Your task to perform on an android device: Search for vegetarian restaurants on Maps Image 0: 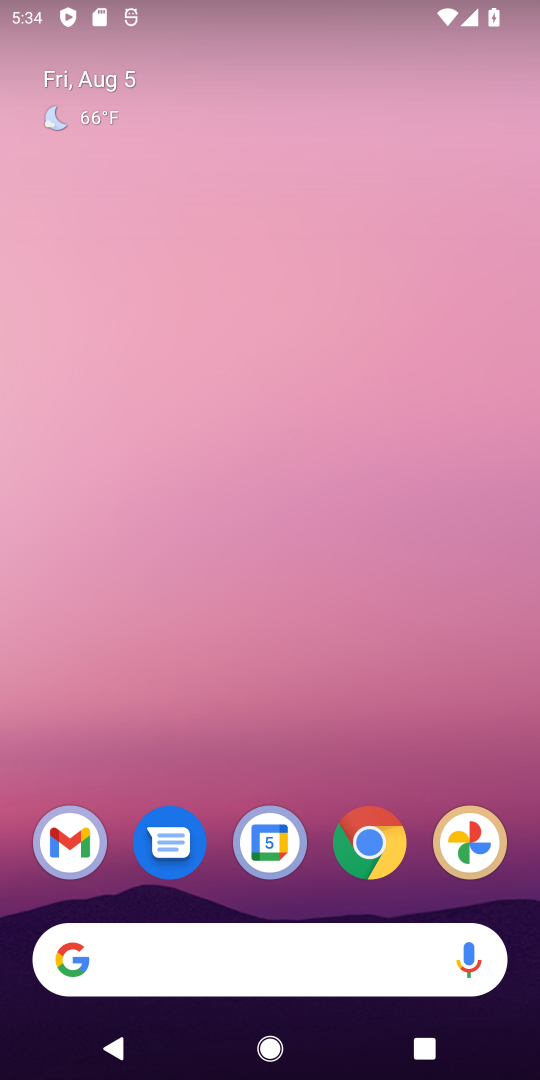
Step 0: drag from (34, 1024) to (207, 189)
Your task to perform on an android device: Search for vegetarian restaurants on Maps Image 1: 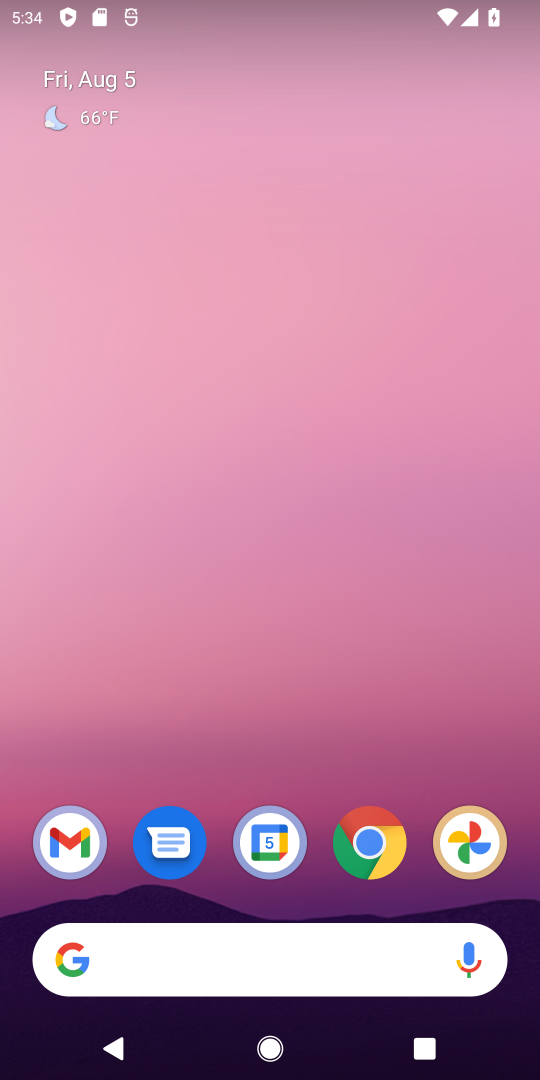
Step 1: drag from (14, 1036) to (295, 168)
Your task to perform on an android device: Search for vegetarian restaurants on Maps Image 2: 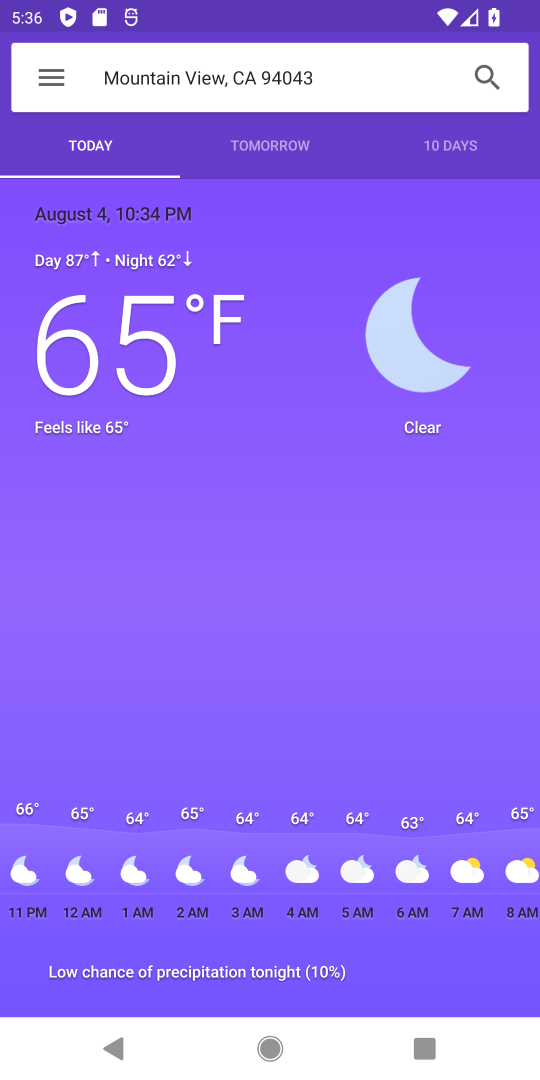
Step 2: press home button
Your task to perform on an android device: Search for vegetarian restaurants on Maps Image 3: 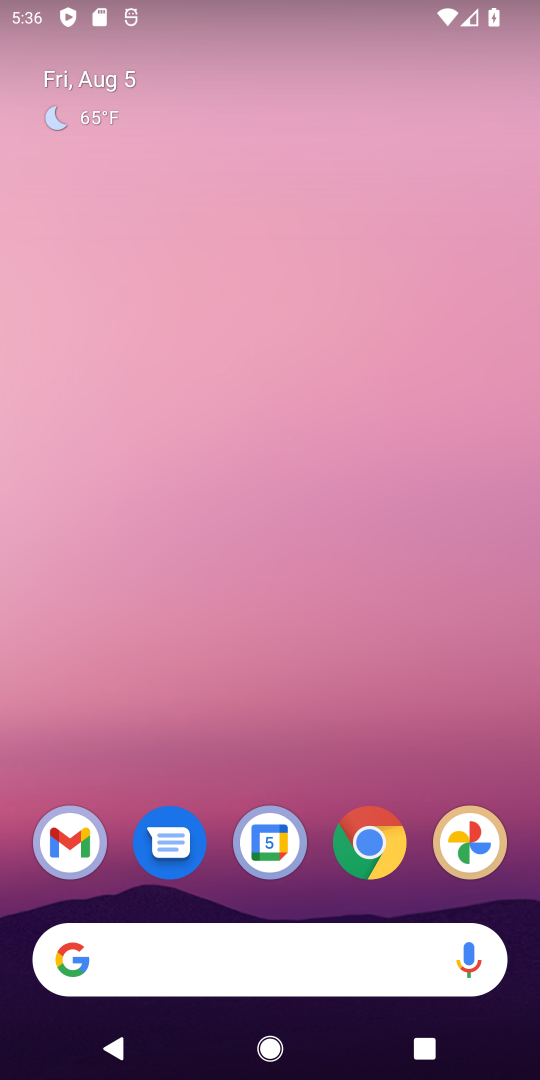
Step 3: drag from (232, 462) to (398, 153)
Your task to perform on an android device: Search for vegetarian restaurants on Maps Image 4: 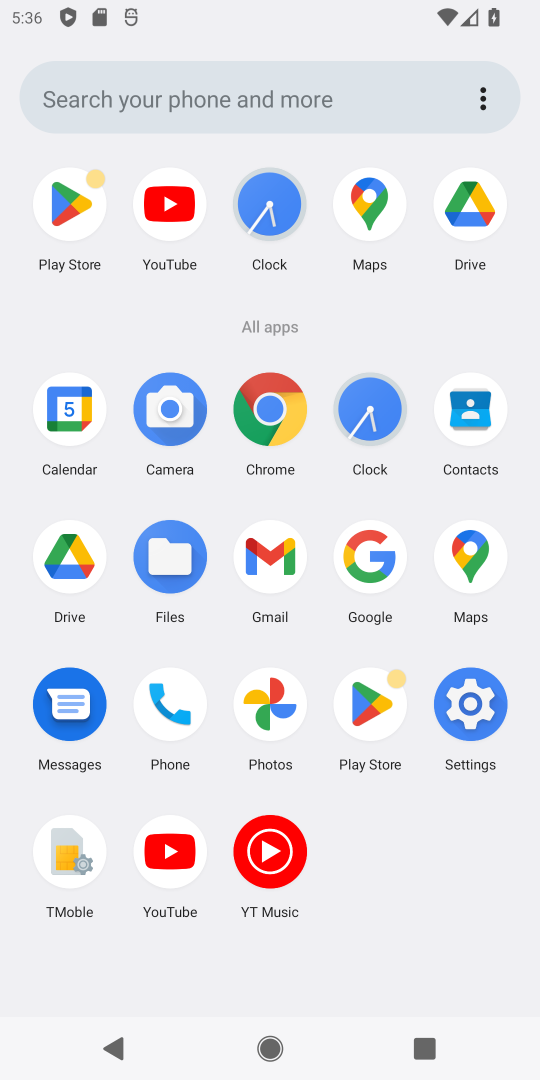
Step 4: click (380, 230)
Your task to perform on an android device: Search for vegetarian restaurants on Maps Image 5: 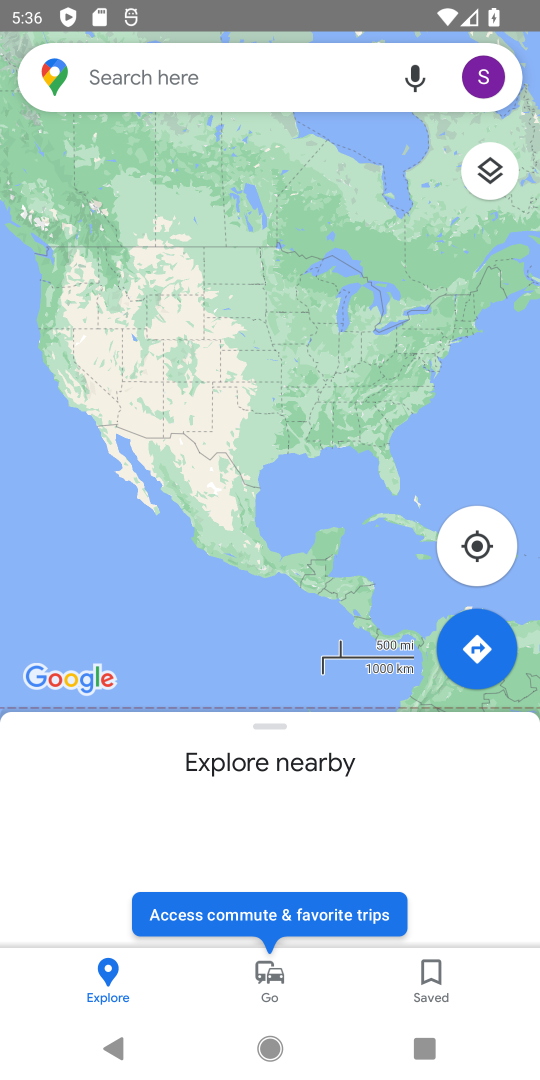
Step 5: click (232, 69)
Your task to perform on an android device: Search for vegetarian restaurants on Maps Image 6: 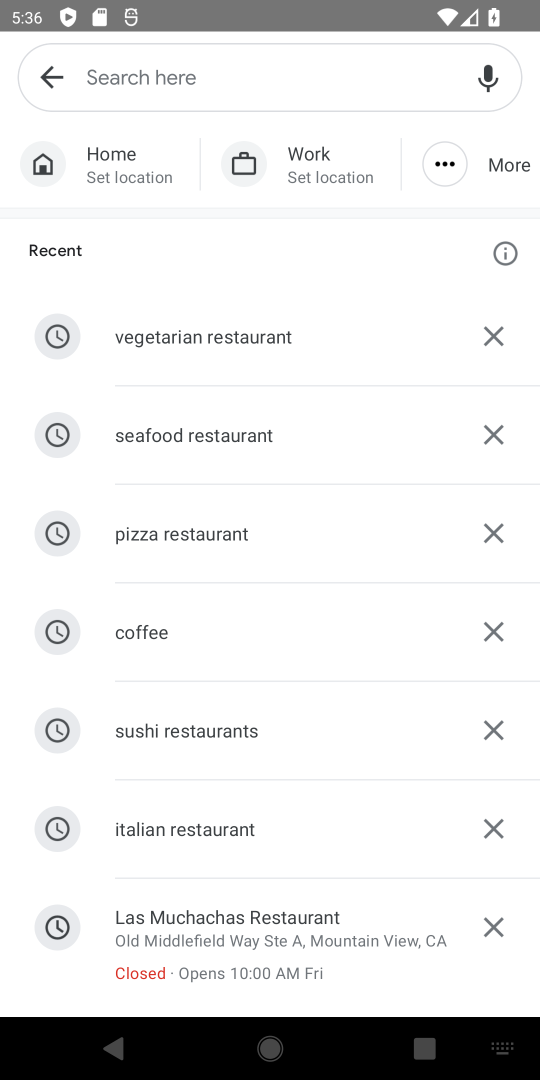
Step 6: click (229, 344)
Your task to perform on an android device: Search for vegetarian restaurants on Maps Image 7: 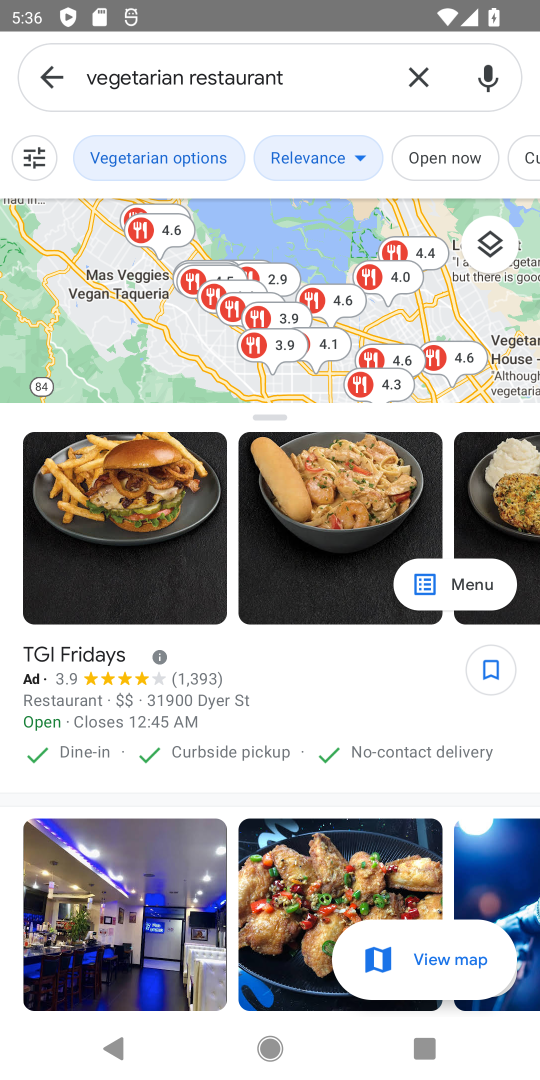
Step 7: task complete